Your task to perform on an android device: Open Chrome and go to the settings page Image 0: 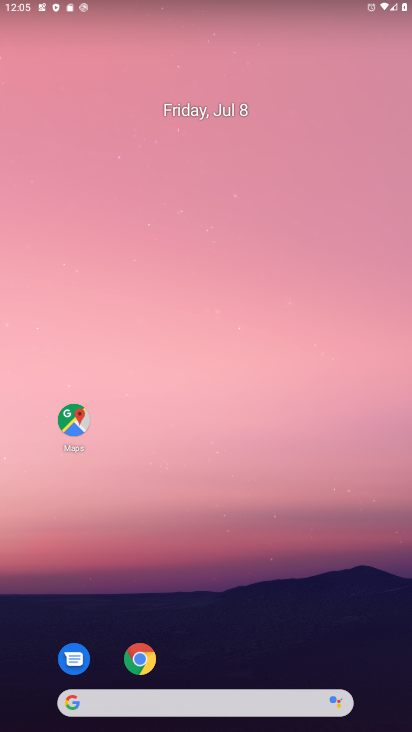
Step 0: click (143, 657)
Your task to perform on an android device: Open Chrome and go to the settings page Image 1: 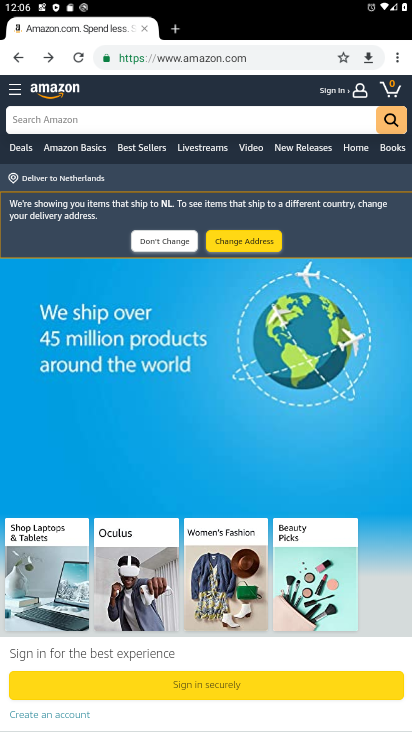
Step 1: click (399, 54)
Your task to perform on an android device: Open Chrome and go to the settings page Image 2: 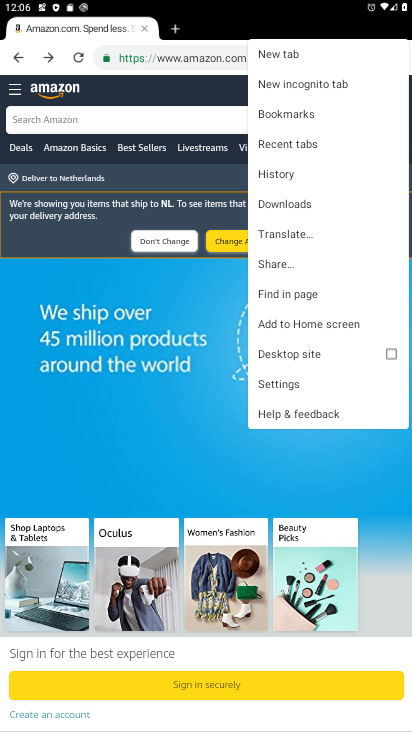
Step 2: click (267, 377)
Your task to perform on an android device: Open Chrome and go to the settings page Image 3: 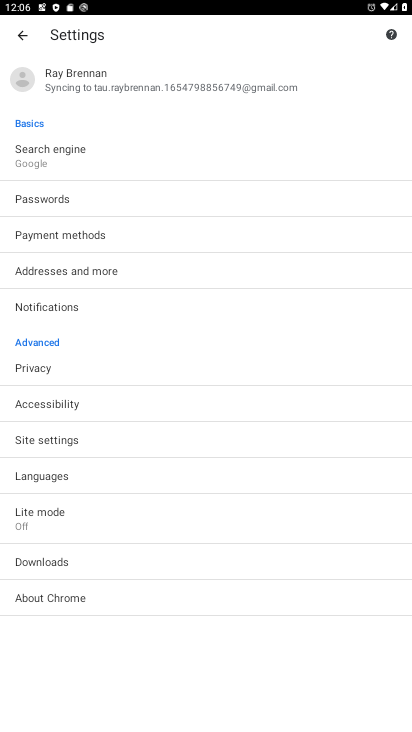
Step 3: task complete